Your task to perform on an android device: Open calendar and show me the fourth week of next month Image 0: 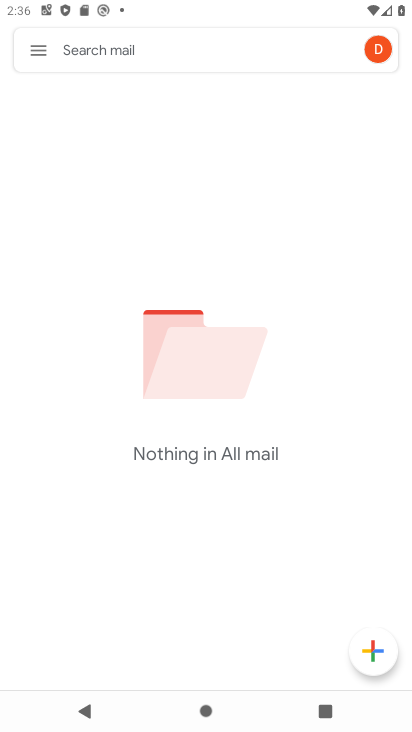
Step 0: press home button
Your task to perform on an android device: Open calendar and show me the fourth week of next month Image 1: 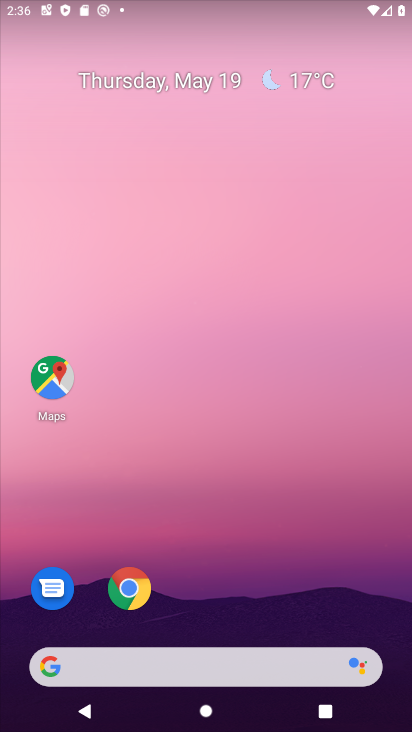
Step 1: drag from (298, 558) to (240, 123)
Your task to perform on an android device: Open calendar and show me the fourth week of next month Image 2: 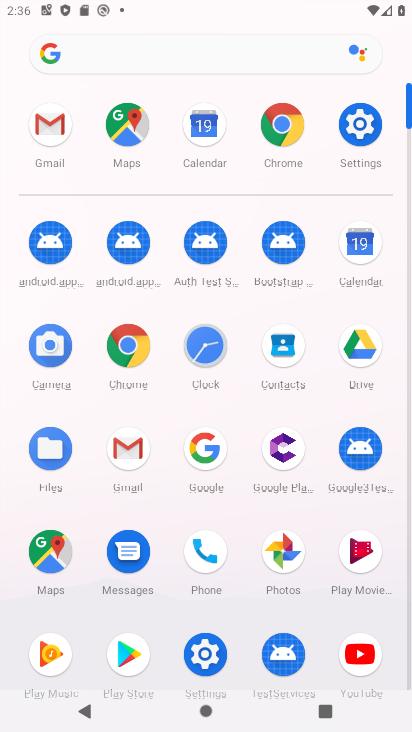
Step 2: click (212, 131)
Your task to perform on an android device: Open calendar and show me the fourth week of next month Image 3: 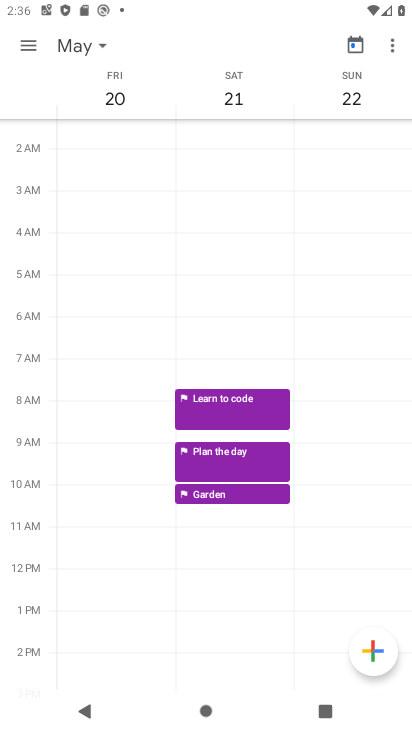
Step 3: click (37, 38)
Your task to perform on an android device: Open calendar and show me the fourth week of next month Image 4: 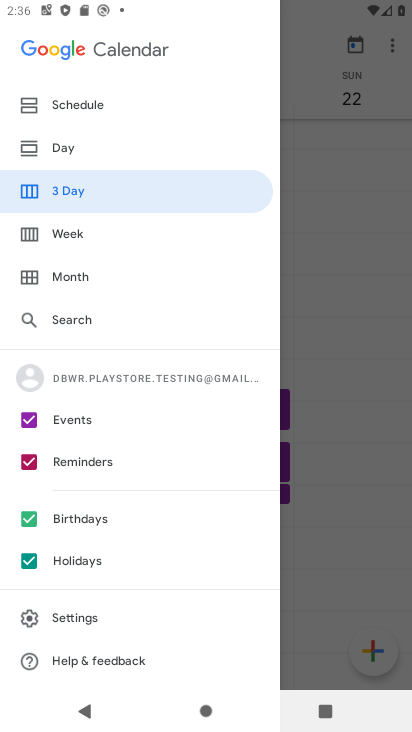
Step 4: click (320, 354)
Your task to perform on an android device: Open calendar and show me the fourth week of next month Image 5: 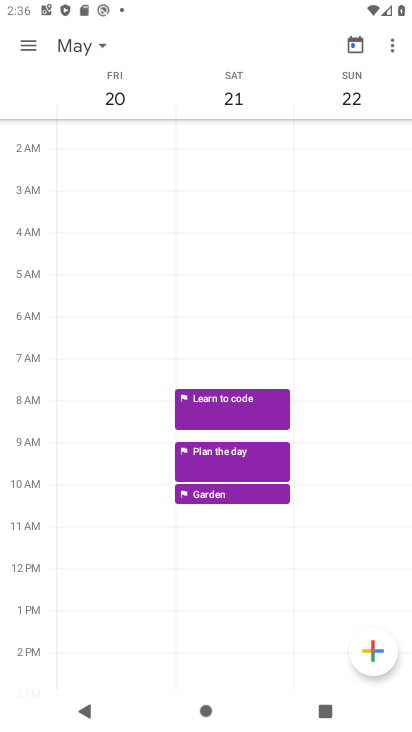
Step 5: click (85, 39)
Your task to perform on an android device: Open calendar and show me the fourth week of next month Image 6: 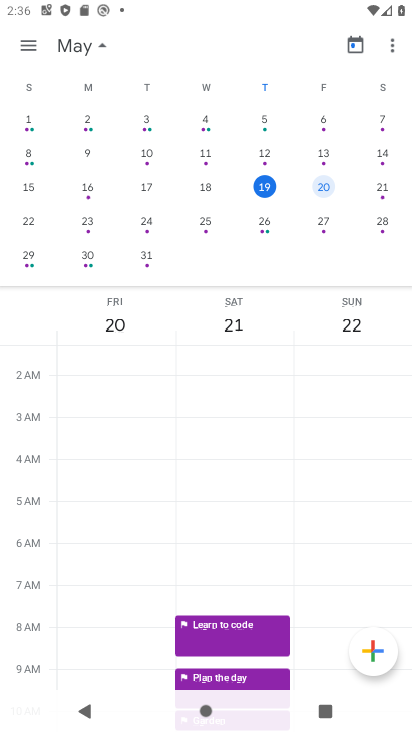
Step 6: drag from (378, 229) to (54, 180)
Your task to perform on an android device: Open calendar and show me the fourth week of next month Image 7: 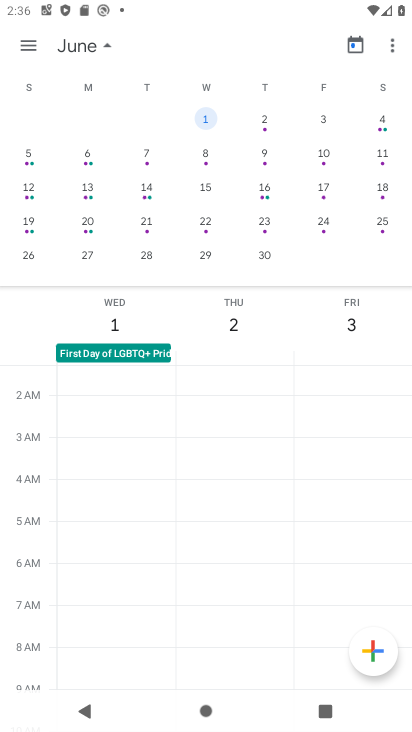
Step 7: click (26, 253)
Your task to perform on an android device: Open calendar and show me the fourth week of next month Image 8: 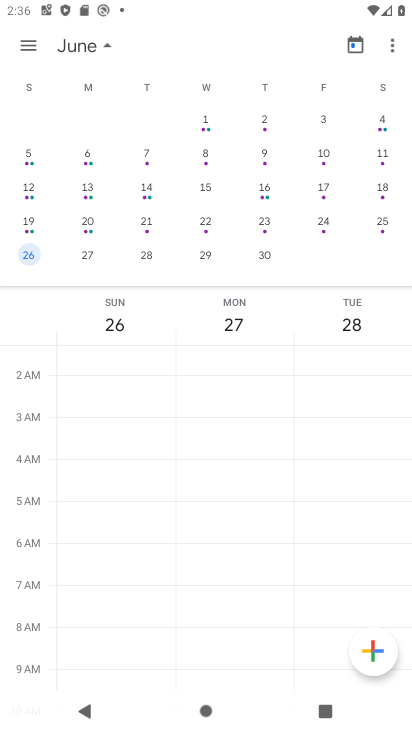
Step 8: click (24, 40)
Your task to perform on an android device: Open calendar and show me the fourth week of next month Image 9: 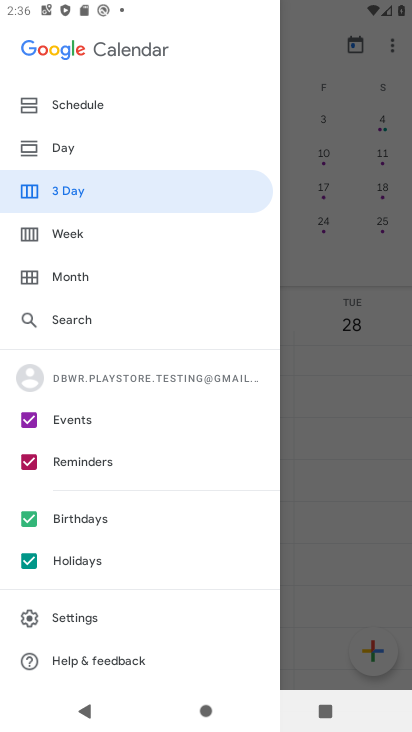
Step 9: click (54, 223)
Your task to perform on an android device: Open calendar and show me the fourth week of next month Image 10: 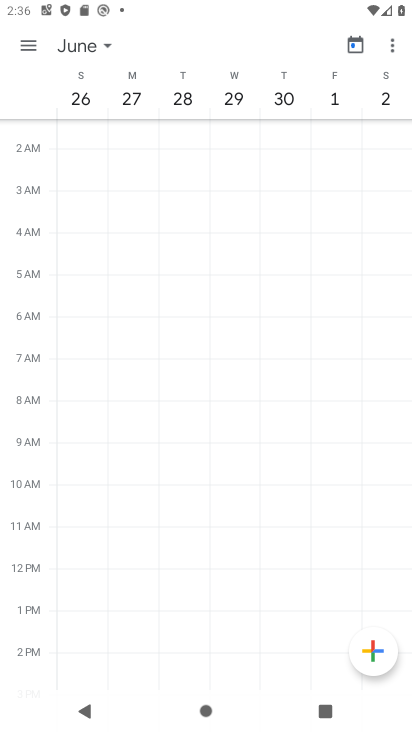
Step 10: task complete